Your task to perform on an android device: uninstall "Messages" Image 0: 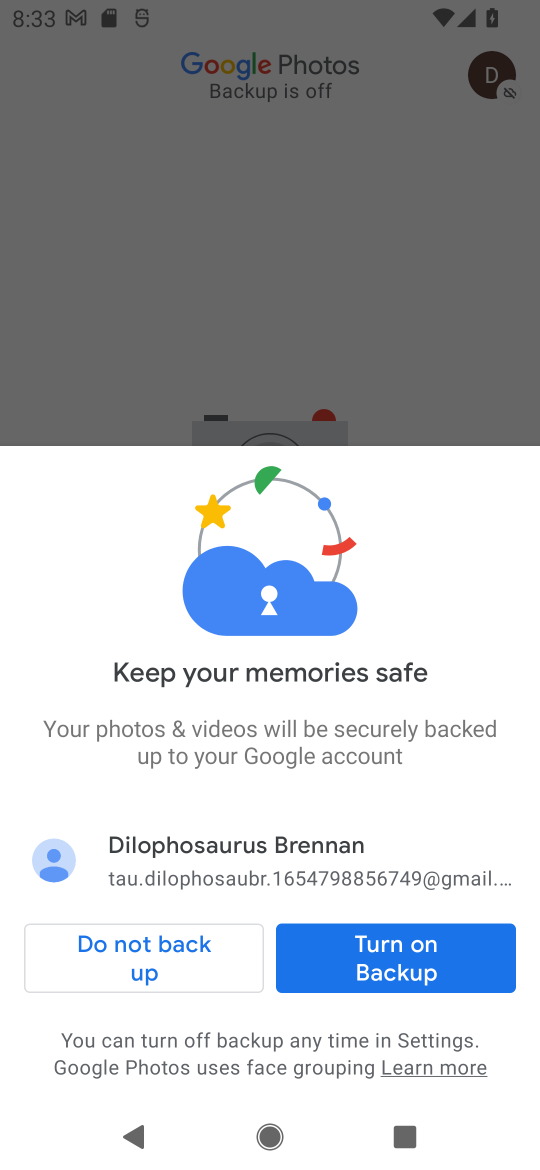
Step 0: press home button
Your task to perform on an android device: uninstall "Messages" Image 1: 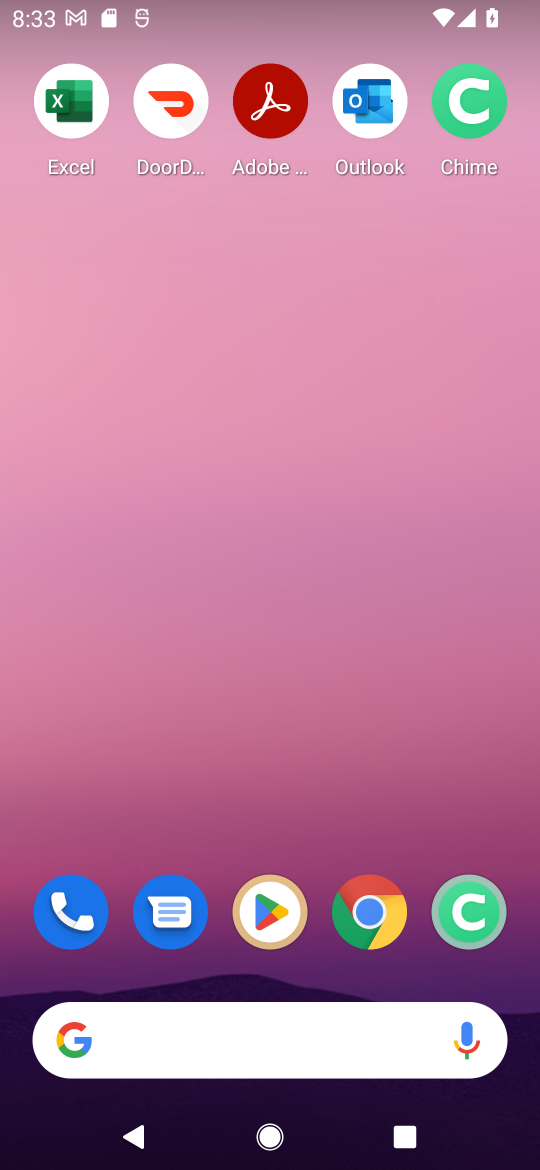
Step 1: drag from (228, 1011) to (265, 103)
Your task to perform on an android device: uninstall "Messages" Image 2: 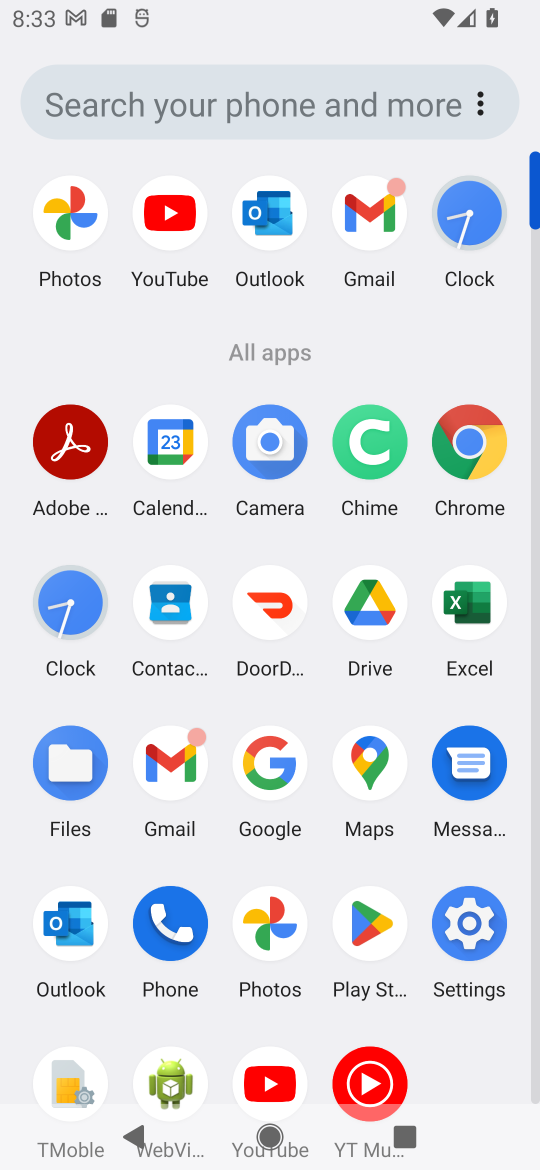
Step 2: click (366, 913)
Your task to perform on an android device: uninstall "Messages" Image 3: 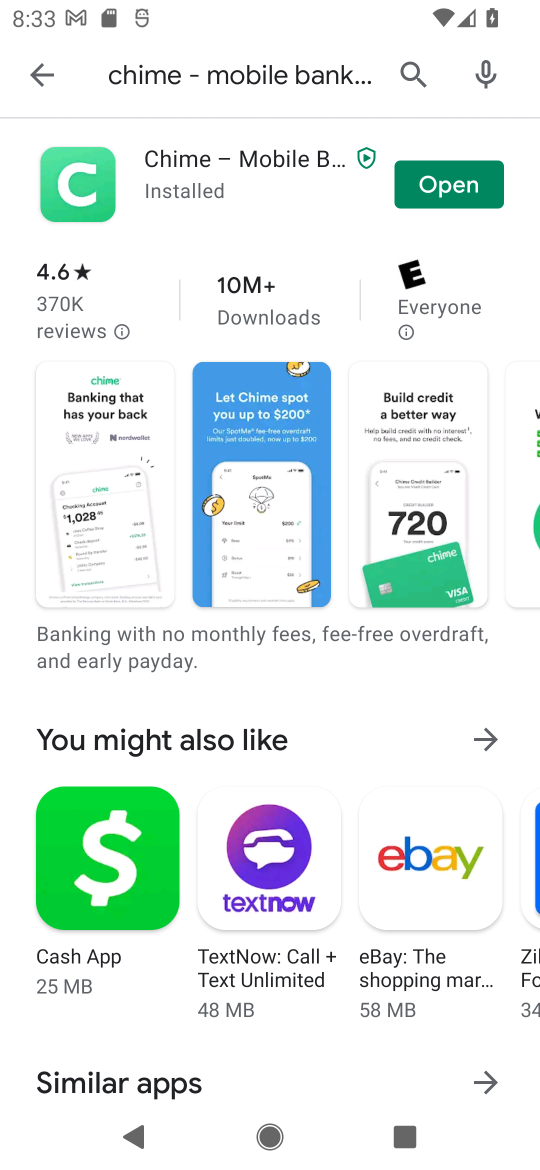
Step 3: press back button
Your task to perform on an android device: uninstall "Messages" Image 4: 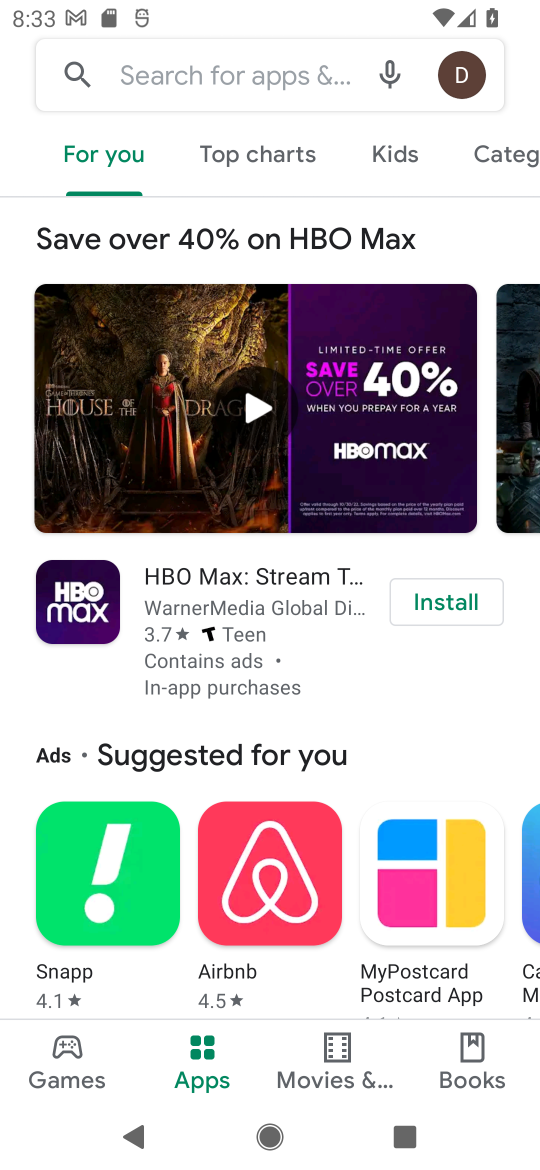
Step 4: click (312, 95)
Your task to perform on an android device: uninstall "Messages" Image 5: 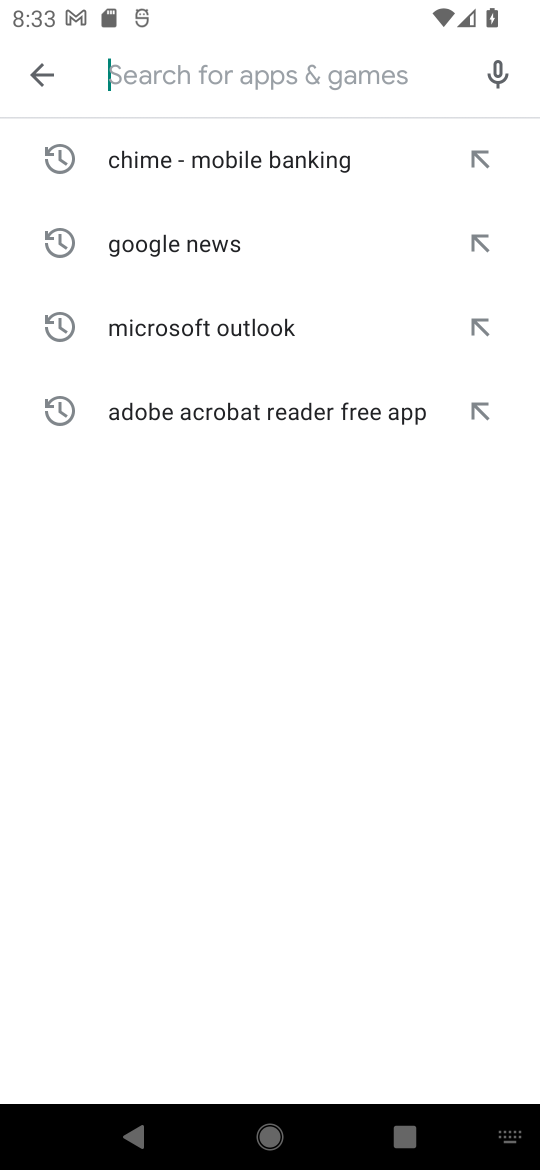
Step 5: type "Messages"
Your task to perform on an android device: uninstall "Messages" Image 6: 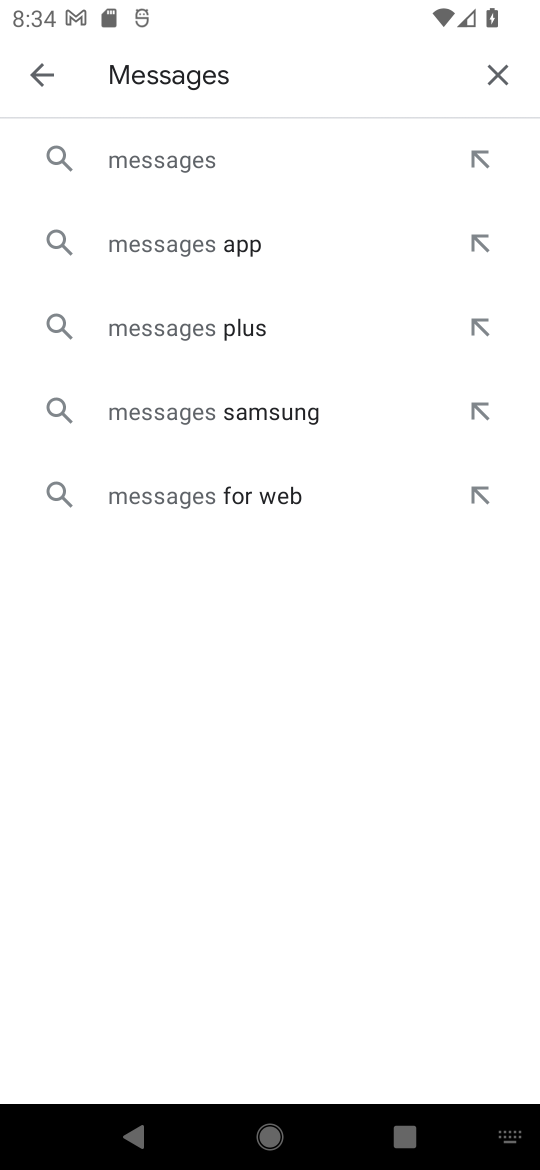
Step 6: click (180, 167)
Your task to perform on an android device: uninstall "Messages" Image 7: 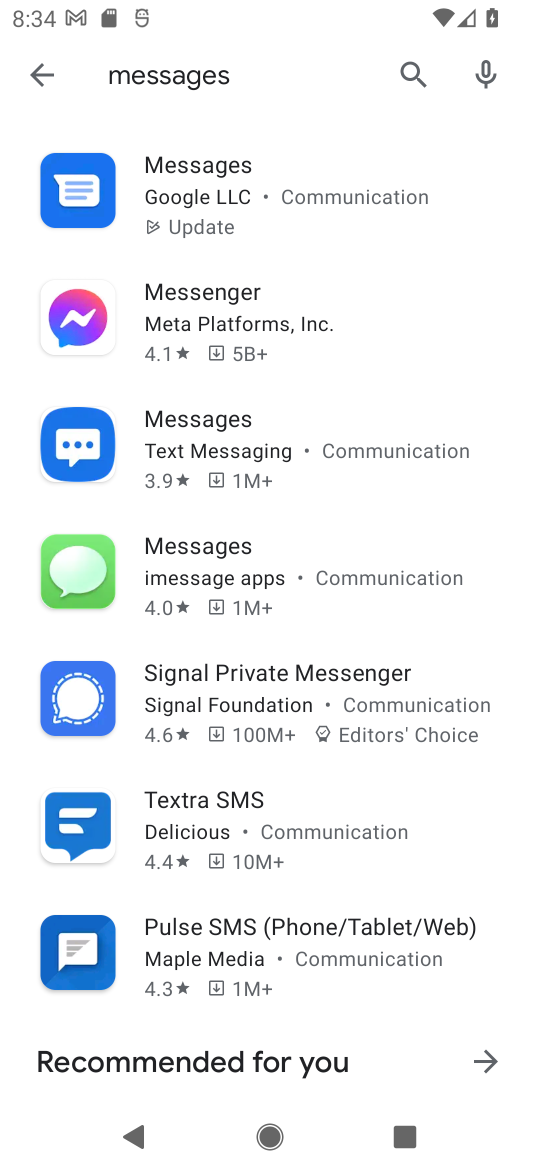
Step 7: click (180, 167)
Your task to perform on an android device: uninstall "Messages" Image 8: 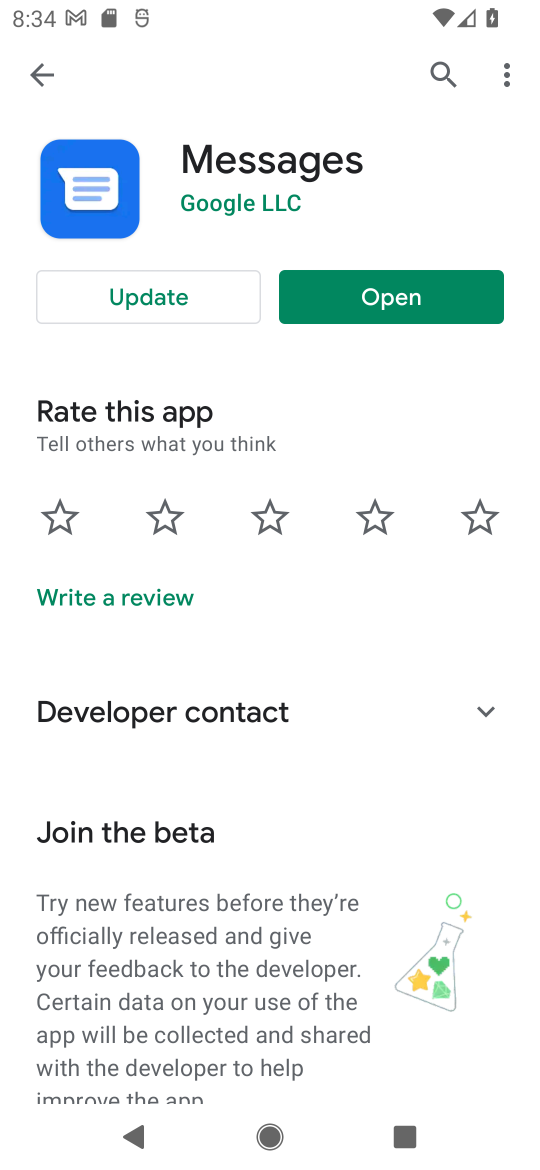
Step 8: click (204, 321)
Your task to perform on an android device: uninstall "Messages" Image 9: 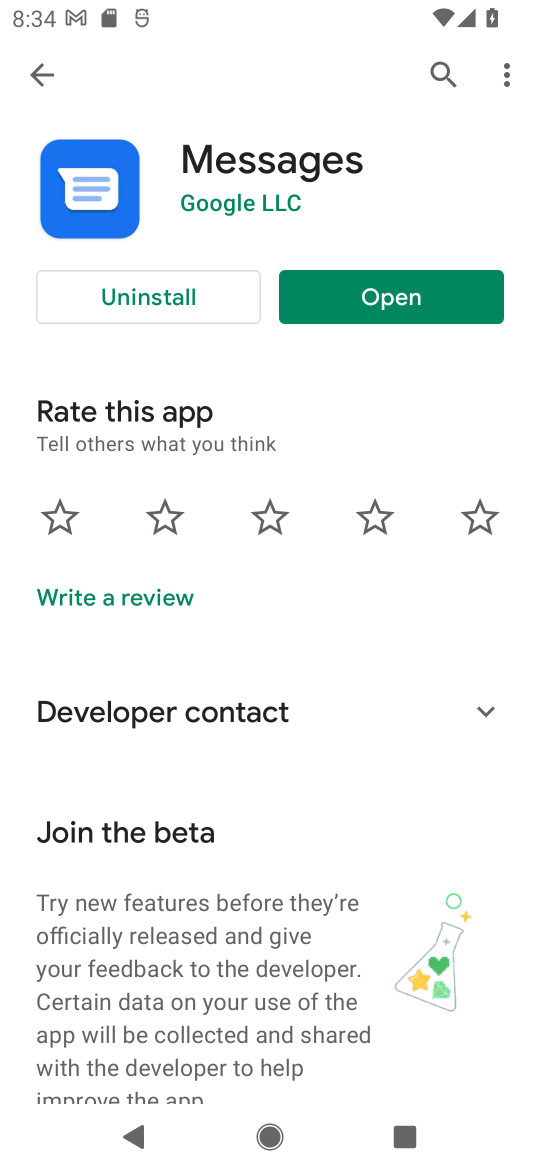
Step 9: click (147, 291)
Your task to perform on an android device: uninstall "Messages" Image 10: 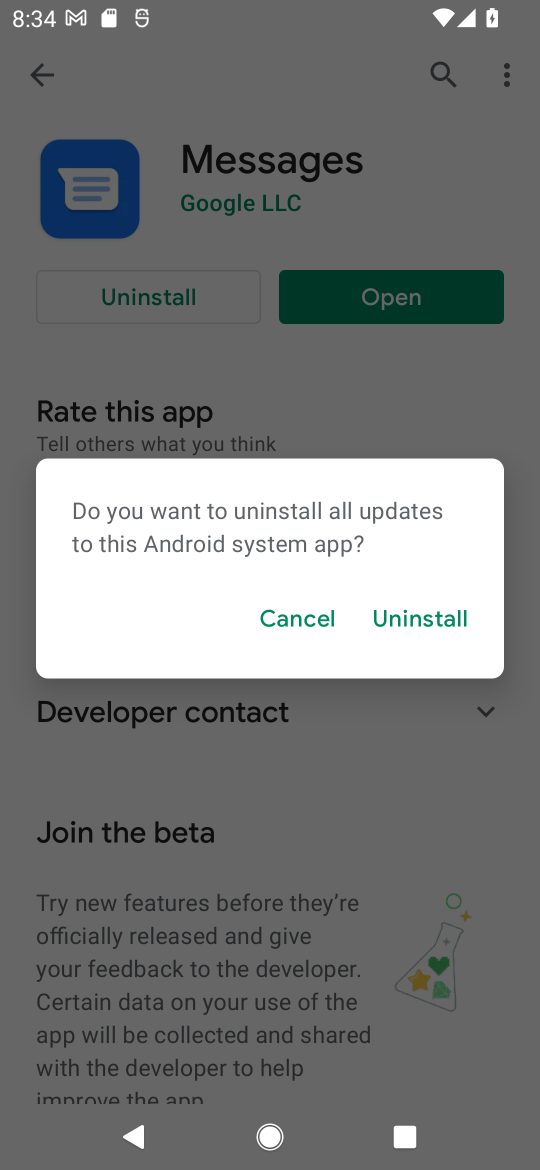
Step 10: click (439, 623)
Your task to perform on an android device: uninstall "Messages" Image 11: 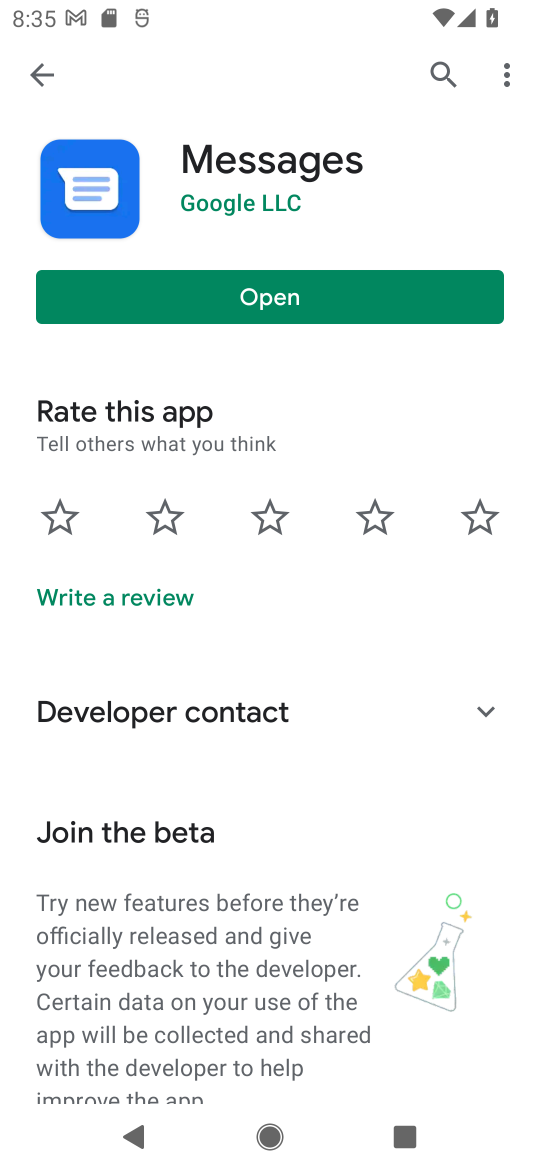
Step 11: task complete